Your task to perform on an android device: Open Chrome and go to settings Image 0: 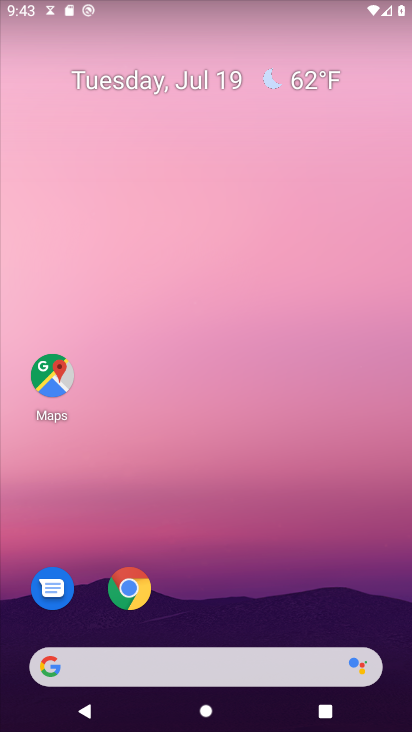
Step 0: click (133, 589)
Your task to perform on an android device: Open Chrome and go to settings Image 1: 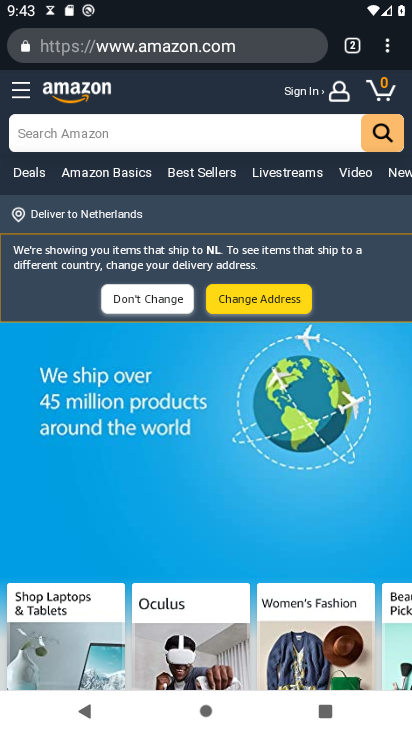
Step 1: click (393, 50)
Your task to perform on an android device: Open Chrome and go to settings Image 2: 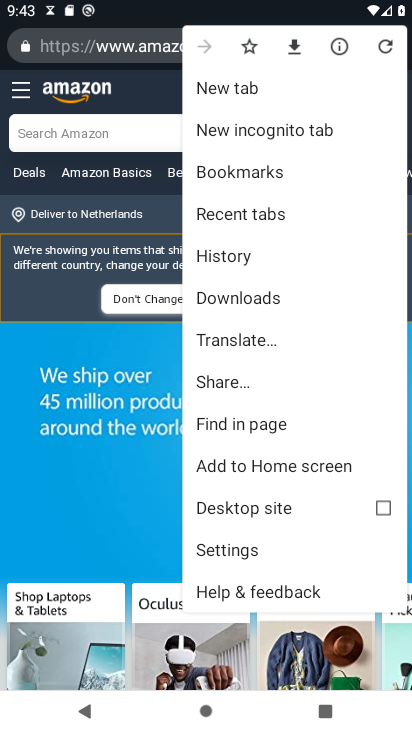
Step 2: click (214, 552)
Your task to perform on an android device: Open Chrome and go to settings Image 3: 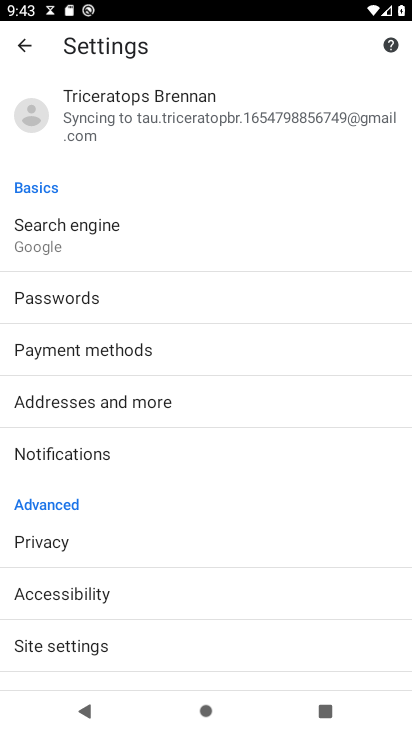
Step 3: task complete